Your task to perform on an android device: check data usage Image 0: 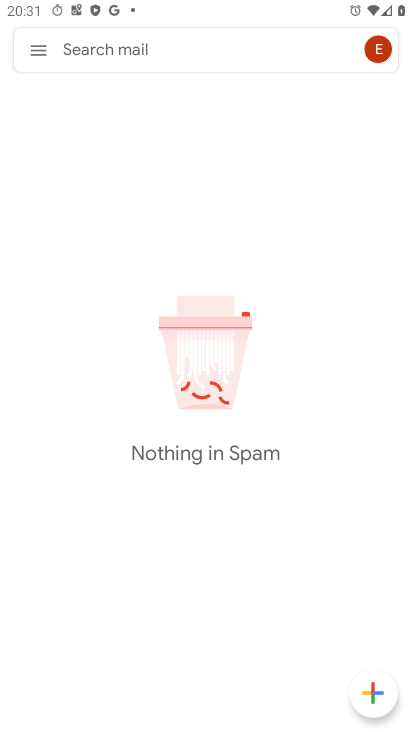
Step 0: press home button
Your task to perform on an android device: check data usage Image 1: 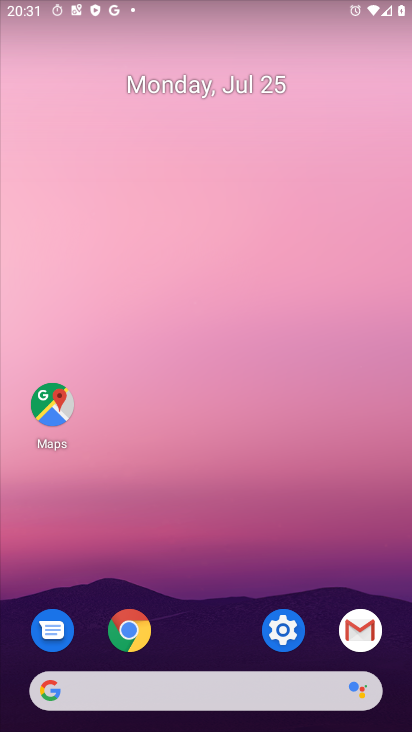
Step 1: click (277, 631)
Your task to perform on an android device: check data usage Image 2: 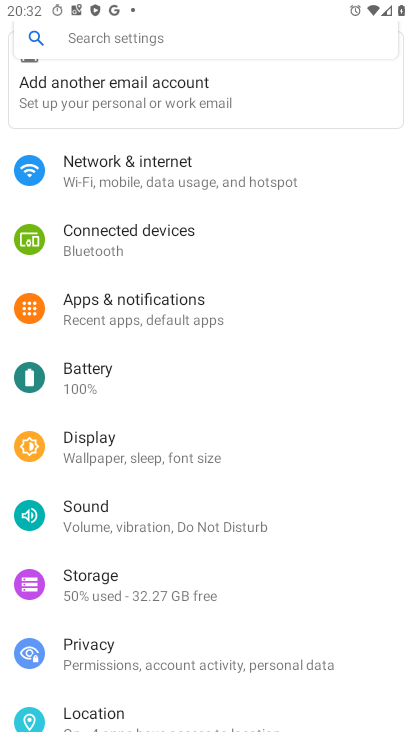
Step 2: click (109, 26)
Your task to perform on an android device: check data usage Image 3: 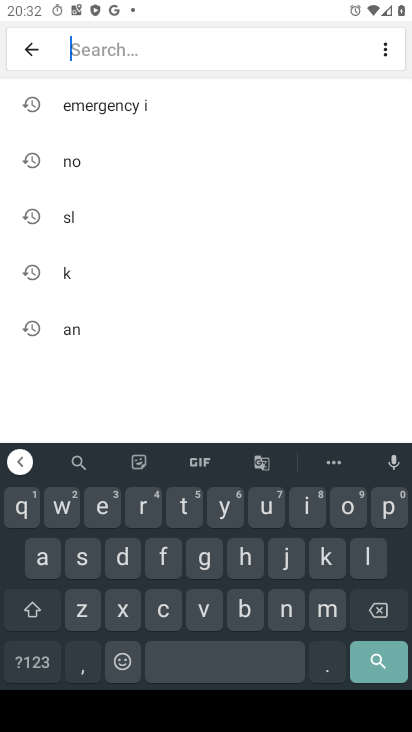
Step 3: click (118, 555)
Your task to perform on an android device: check data usage Image 4: 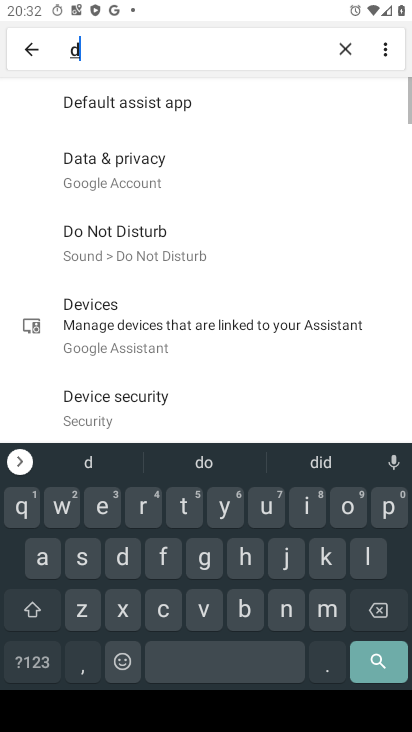
Step 4: click (39, 554)
Your task to perform on an android device: check data usage Image 5: 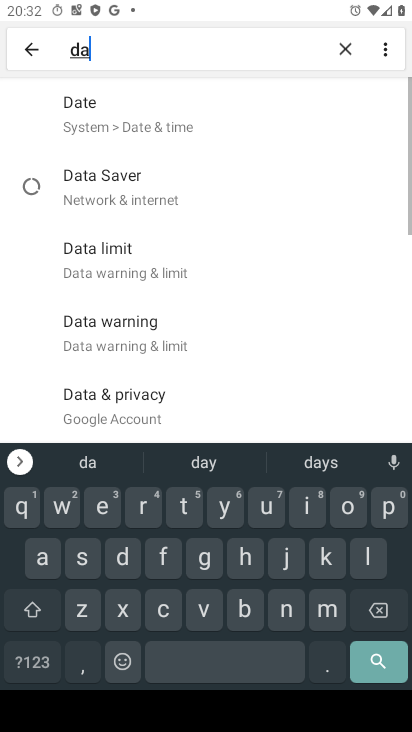
Step 5: click (182, 514)
Your task to perform on an android device: check data usage Image 6: 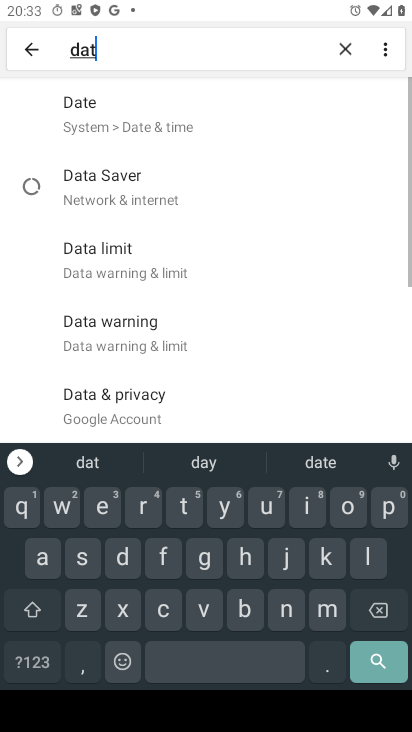
Step 6: click (40, 553)
Your task to perform on an android device: check data usage Image 7: 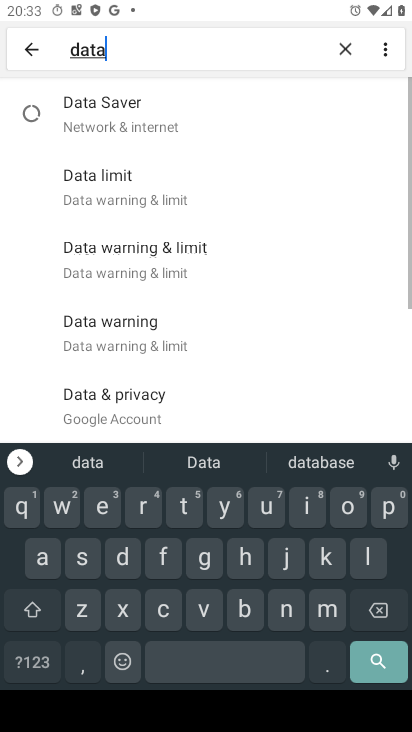
Step 7: click (185, 649)
Your task to perform on an android device: check data usage Image 8: 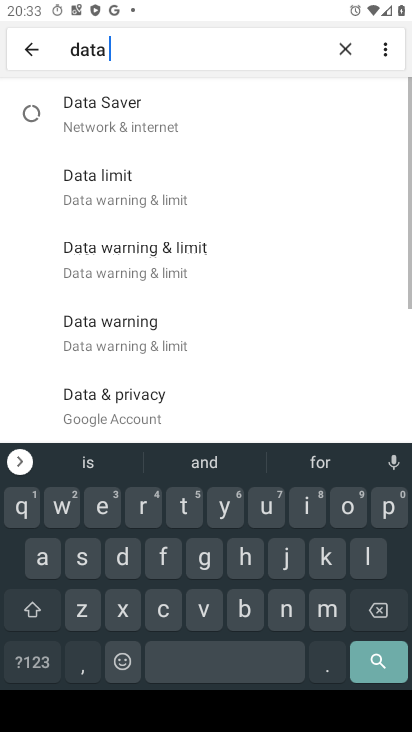
Step 8: click (264, 515)
Your task to perform on an android device: check data usage Image 9: 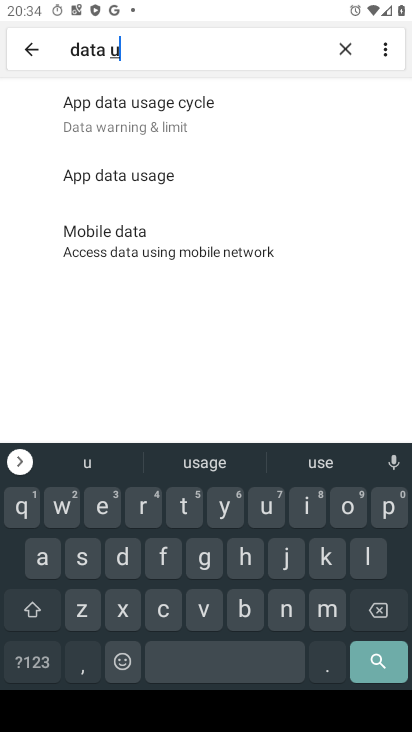
Step 9: click (169, 170)
Your task to perform on an android device: check data usage Image 10: 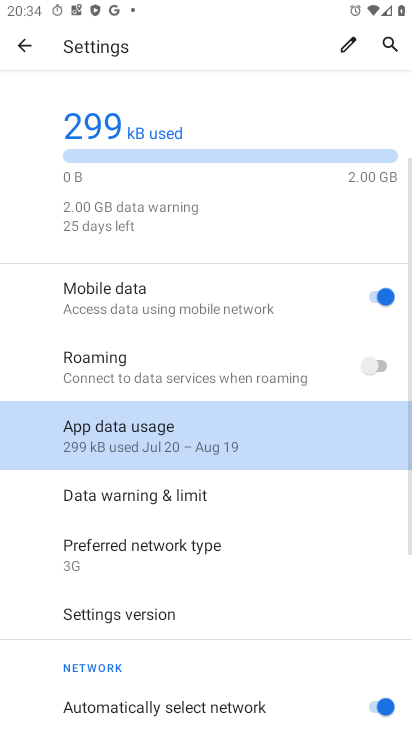
Step 10: click (265, 440)
Your task to perform on an android device: check data usage Image 11: 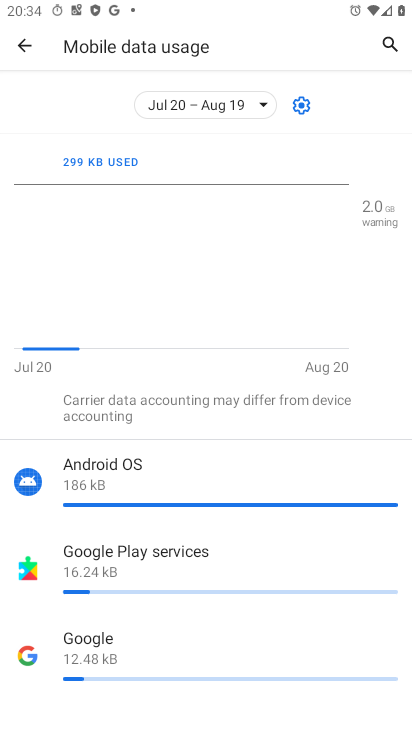
Step 11: task complete